Your task to perform on an android device: Show the shopping cart on bestbuy.com. Search for apple airpods on bestbuy.com, select the first entry, and add it to the cart. Image 0: 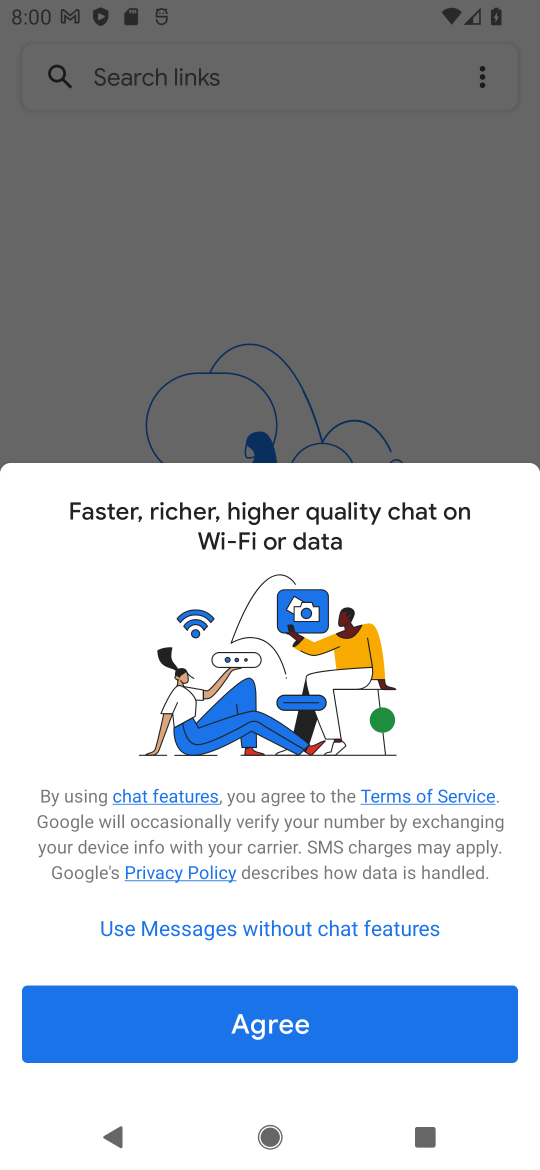
Step 0: press home button
Your task to perform on an android device: Show the shopping cart on bestbuy.com. Search for apple airpods on bestbuy.com, select the first entry, and add it to the cart. Image 1: 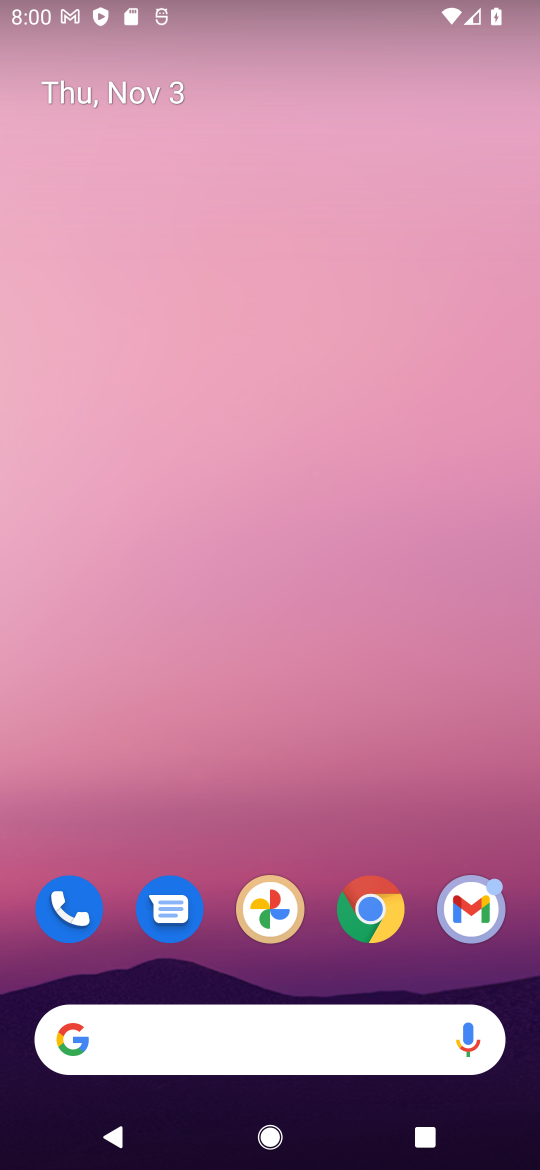
Step 1: drag from (222, 971) to (220, 50)
Your task to perform on an android device: Show the shopping cart on bestbuy.com. Search for apple airpods on bestbuy.com, select the first entry, and add it to the cart. Image 2: 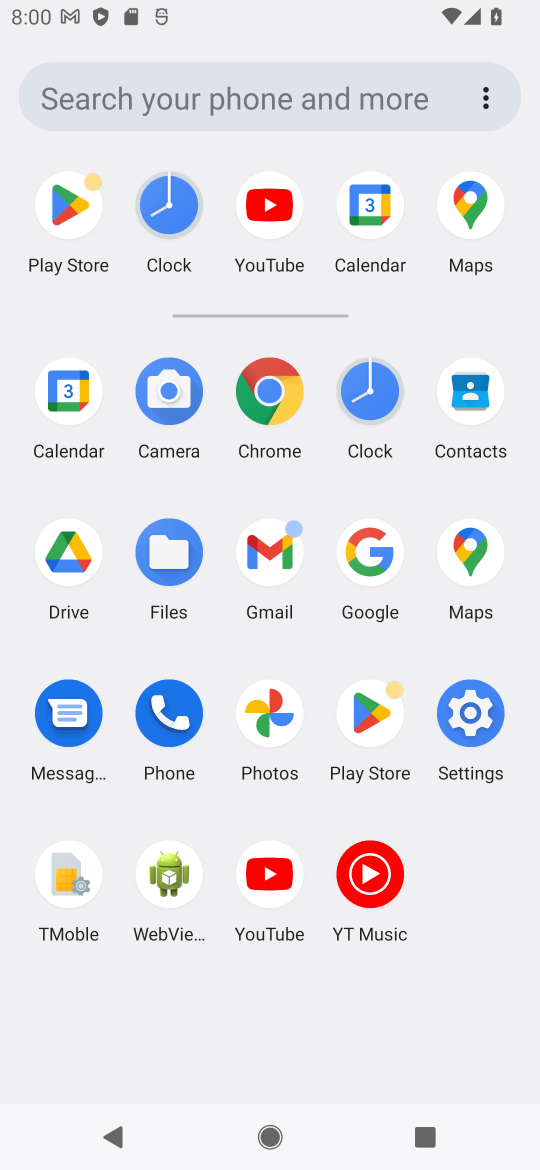
Step 2: click (380, 546)
Your task to perform on an android device: Show the shopping cart on bestbuy.com. Search for apple airpods on bestbuy.com, select the first entry, and add it to the cart. Image 3: 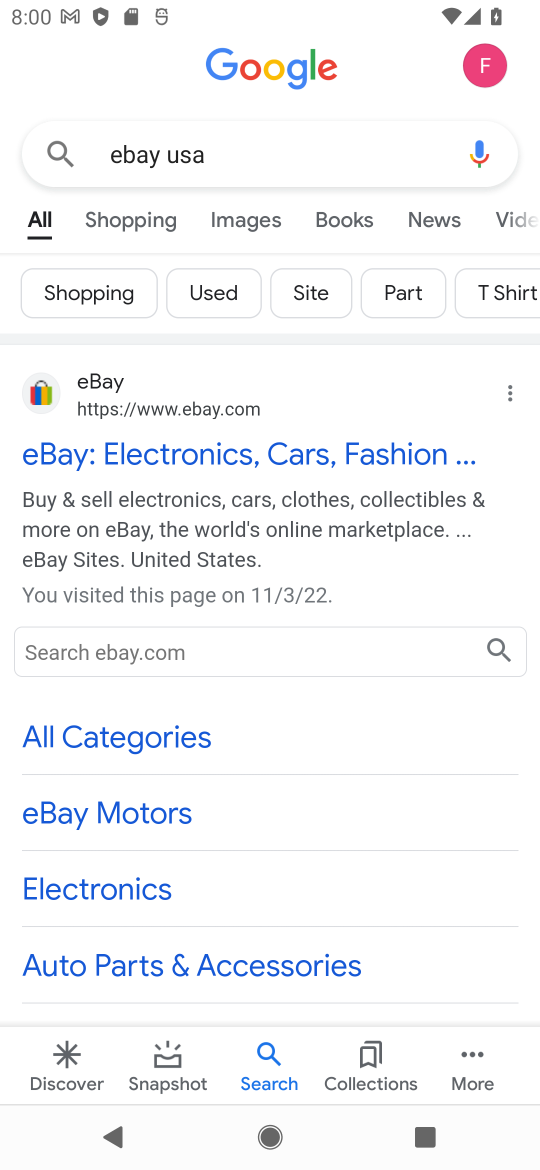
Step 3: click (229, 157)
Your task to perform on an android device: Show the shopping cart on bestbuy.com. Search for apple airpods on bestbuy.com, select the first entry, and add it to the cart. Image 4: 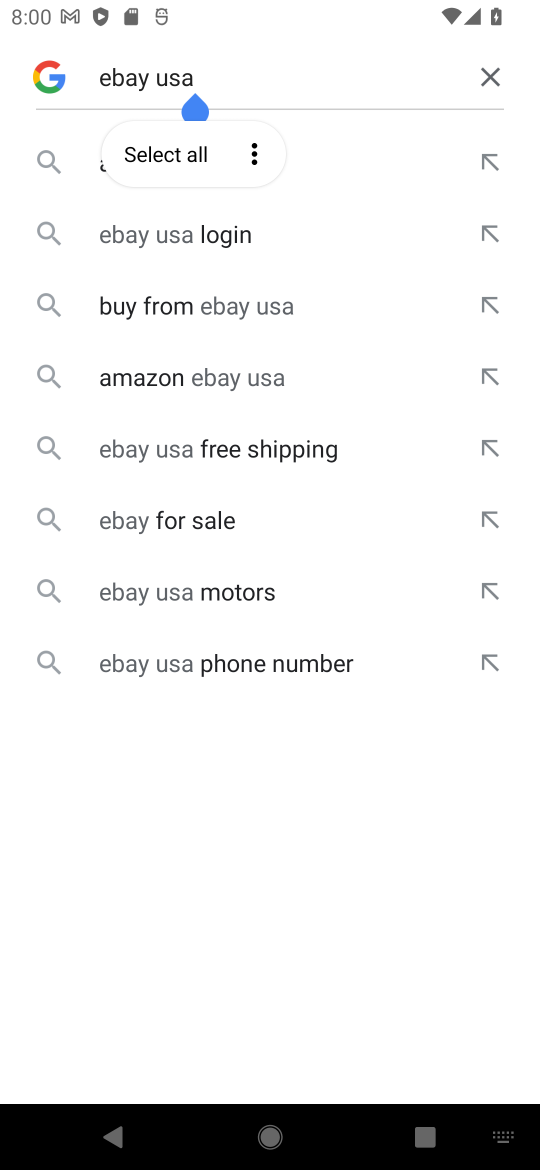
Step 4: click (487, 75)
Your task to perform on an android device: Show the shopping cart on bestbuy.com. Search for apple airpods on bestbuy.com, select the first entry, and add it to the cart. Image 5: 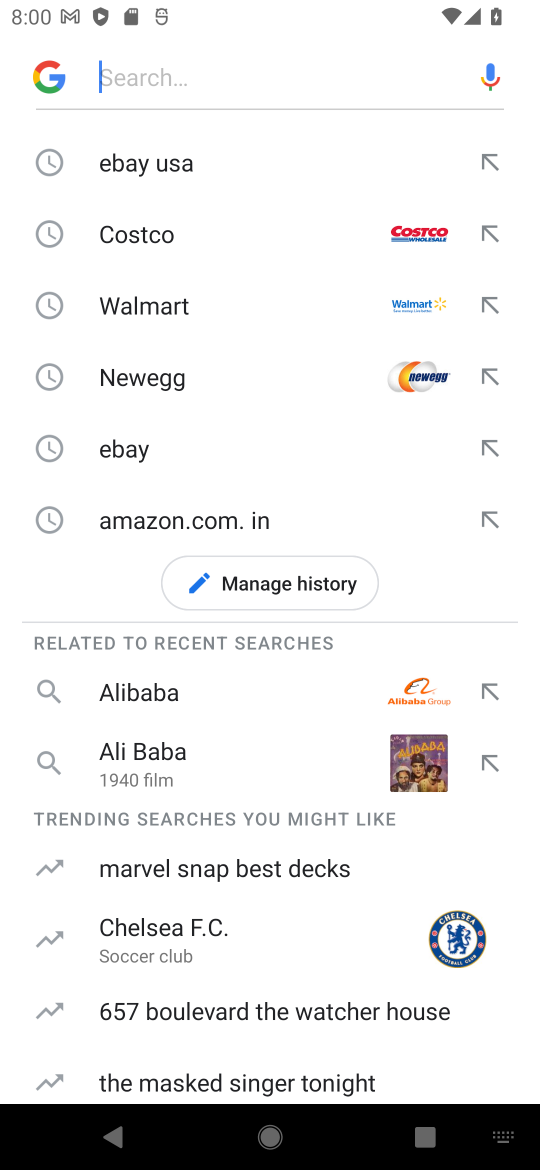
Step 5: click (221, 77)
Your task to perform on an android device: Show the shopping cart on bestbuy.com. Search for apple airpods on bestbuy.com, select the first entry, and add it to the cart. Image 6: 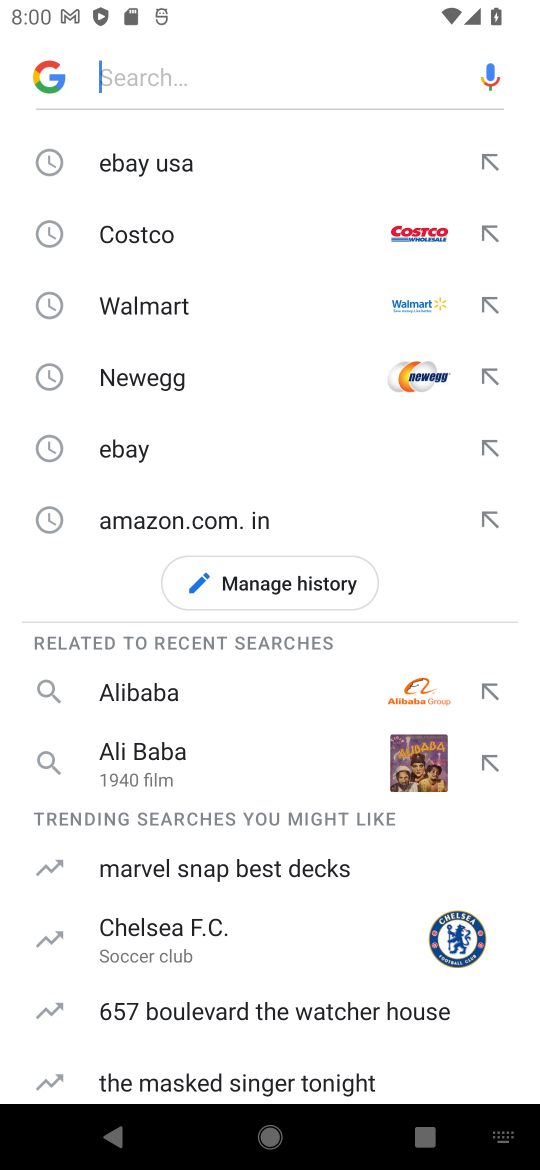
Step 6: type "bestbuy "
Your task to perform on an android device: Show the shopping cart on bestbuy.com. Search for apple airpods on bestbuy.com, select the first entry, and add it to the cart. Image 7: 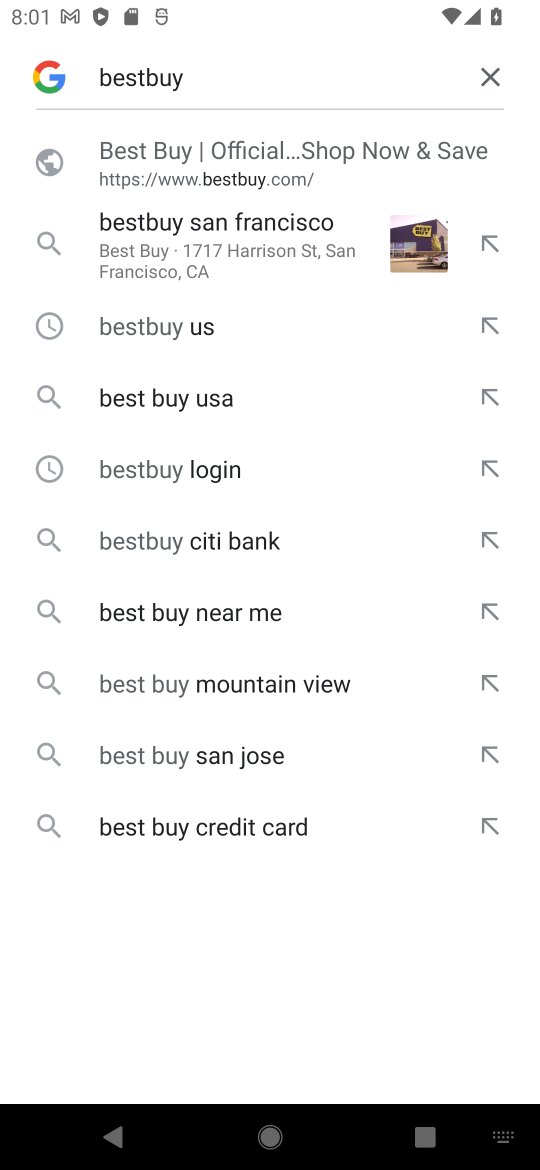
Step 7: click (231, 149)
Your task to perform on an android device: Show the shopping cart on bestbuy.com. Search for apple airpods on bestbuy.com, select the first entry, and add it to the cart. Image 8: 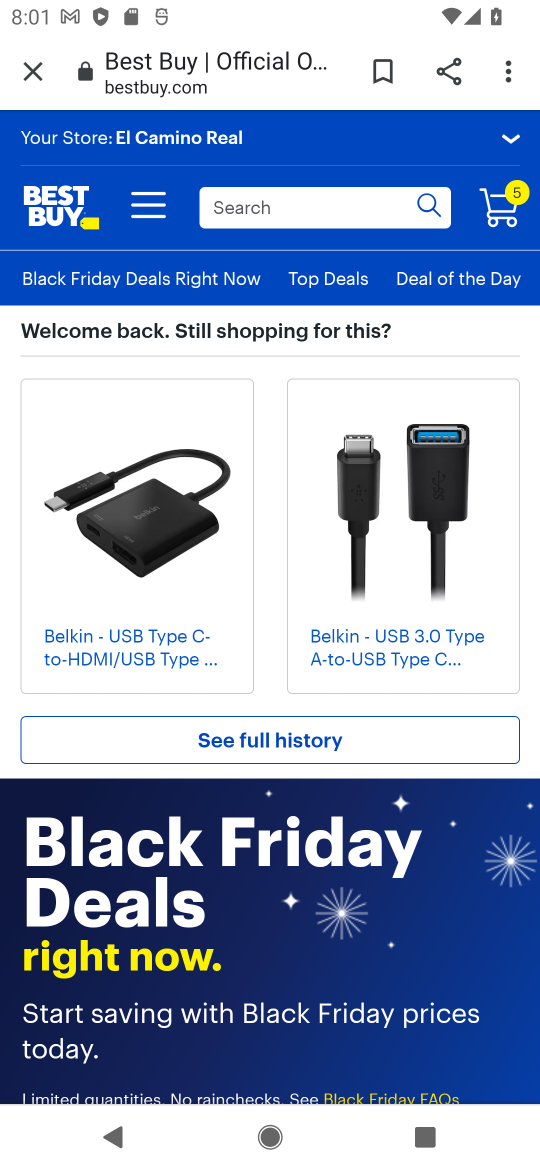
Step 8: click (283, 201)
Your task to perform on an android device: Show the shopping cart on bestbuy.com. Search for apple airpods on bestbuy.com, select the first entry, and add it to the cart. Image 9: 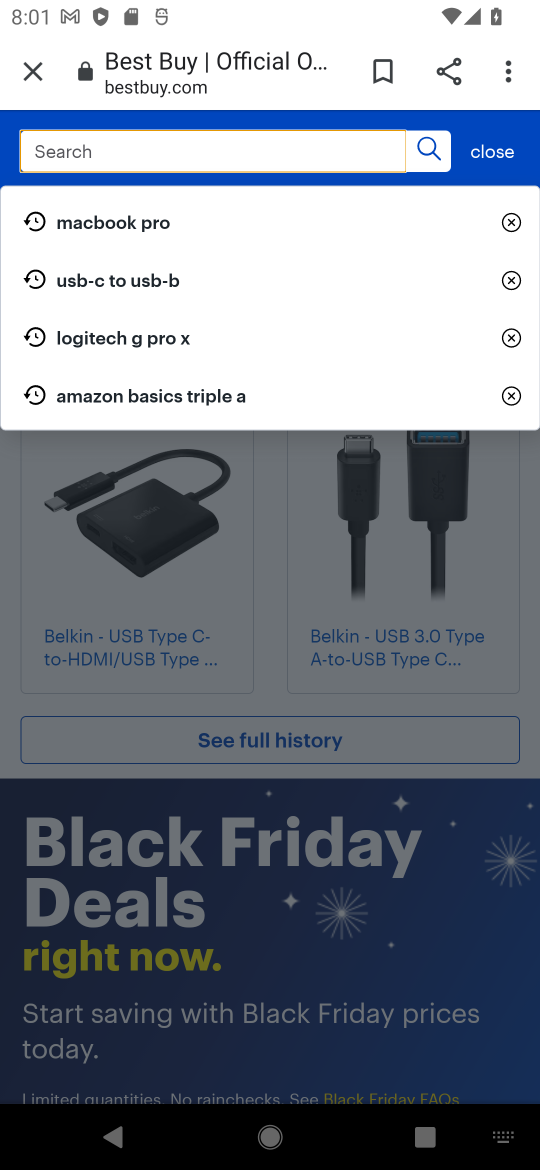
Step 9: type "airpods "
Your task to perform on an android device: Show the shopping cart on bestbuy.com. Search for apple airpods on bestbuy.com, select the first entry, and add it to the cart. Image 10: 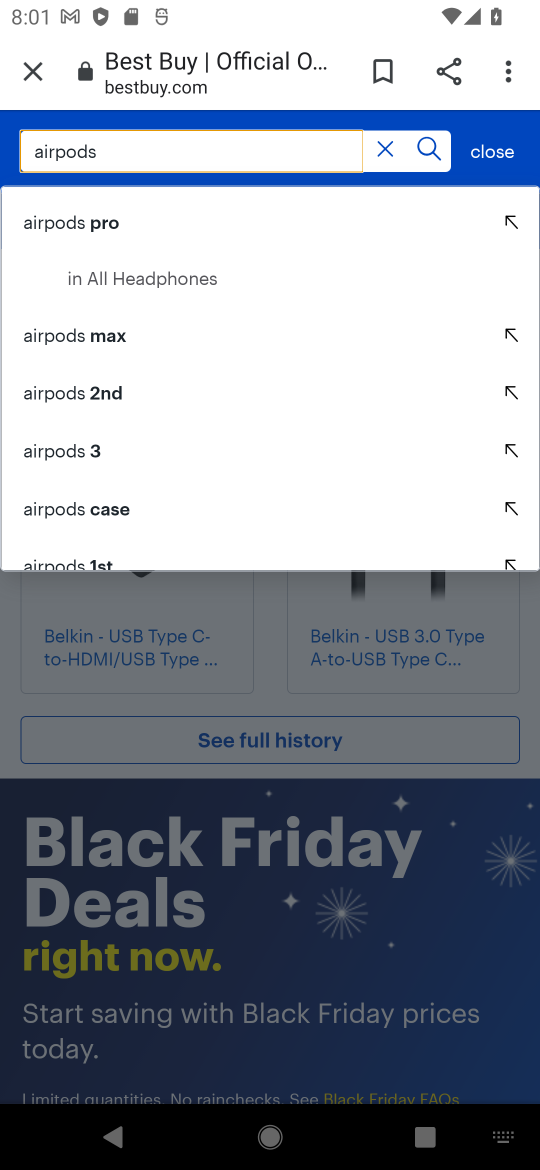
Step 10: click (74, 214)
Your task to perform on an android device: Show the shopping cart on bestbuy.com. Search for apple airpods on bestbuy.com, select the first entry, and add it to the cart. Image 11: 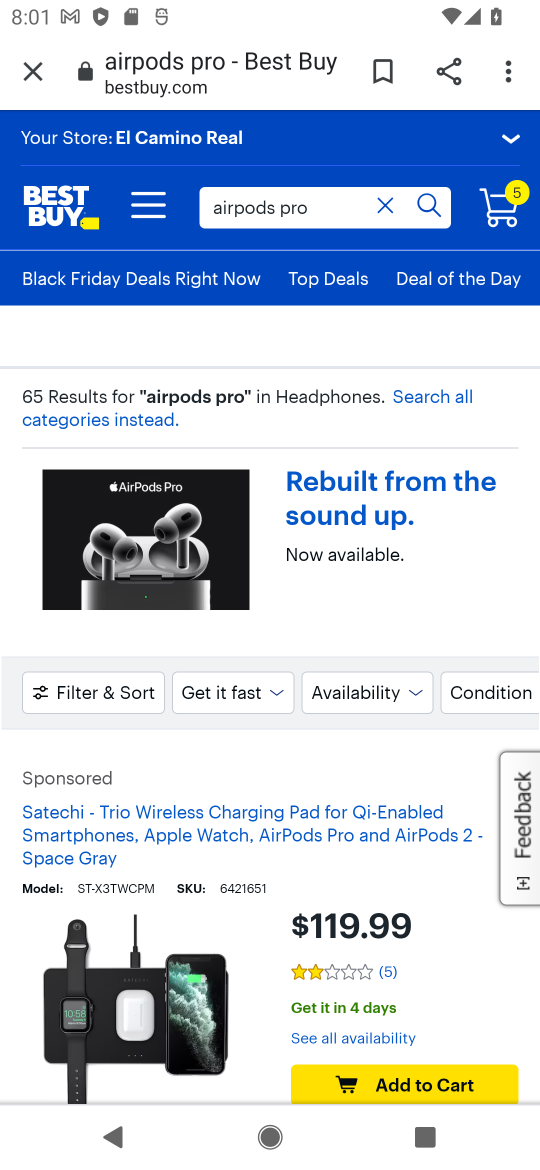
Step 11: drag from (222, 888) to (279, 342)
Your task to perform on an android device: Show the shopping cart on bestbuy.com. Search for apple airpods on bestbuy.com, select the first entry, and add it to the cart. Image 12: 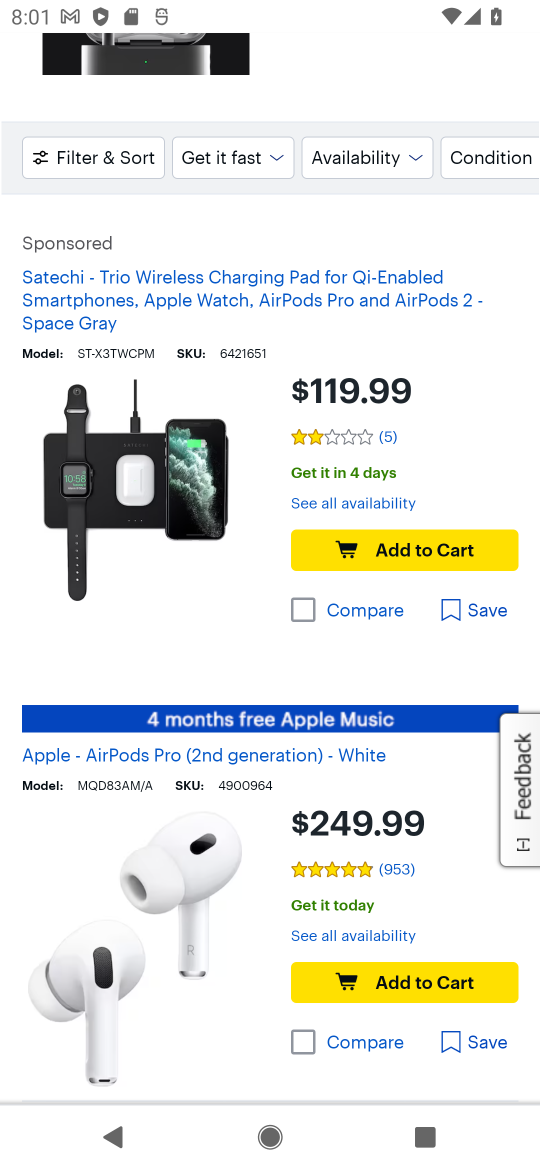
Step 12: drag from (220, 980) to (281, 403)
Your task to perform on an android device: Show the shopping cart on bestbuy.com. Search for apple airpods on bestbuy.com, select the first entry, and add it to the cart. Image 13: 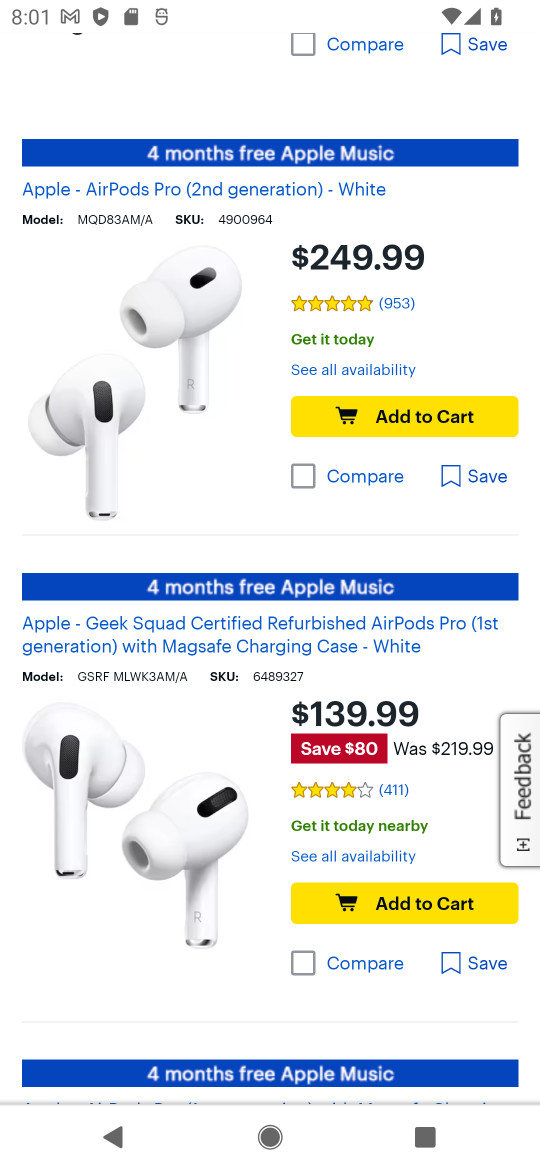
Step 13: click (379, 907)
Your task to perform on an android device: Show the shopping cart on bestbuy.com. Search for apple airpods on bestbuy.com, select the first entry, and add it to the cart. Image 14: 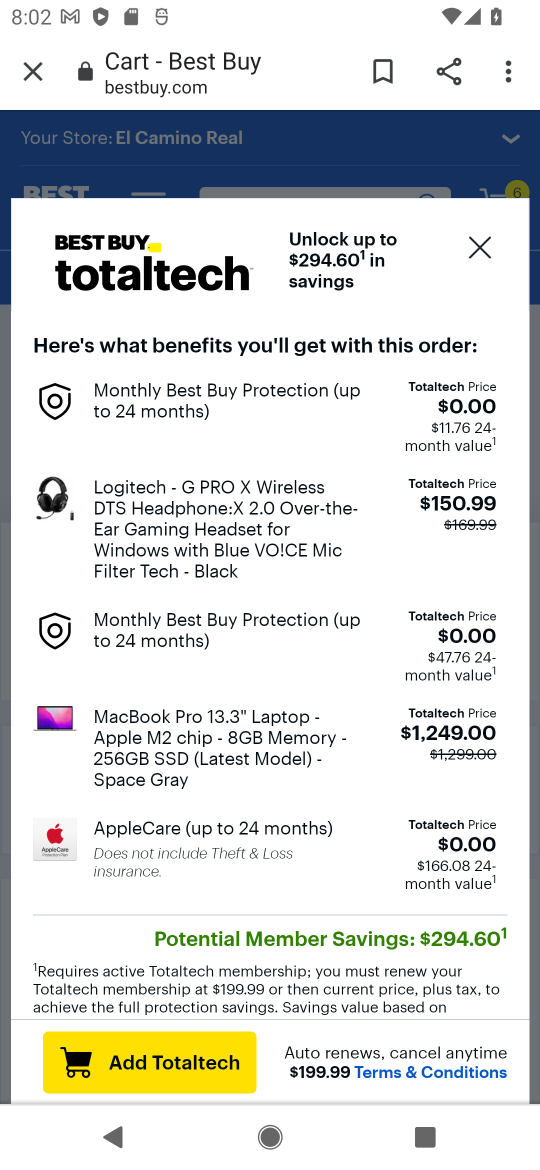
Step 14: click (484, 259)
Your task to perform on an android device: Show the shopping cart on bestbuy.com. Search for apple airpods on bestbuy.com, select the first entry, and add it to the cart. Image 15: 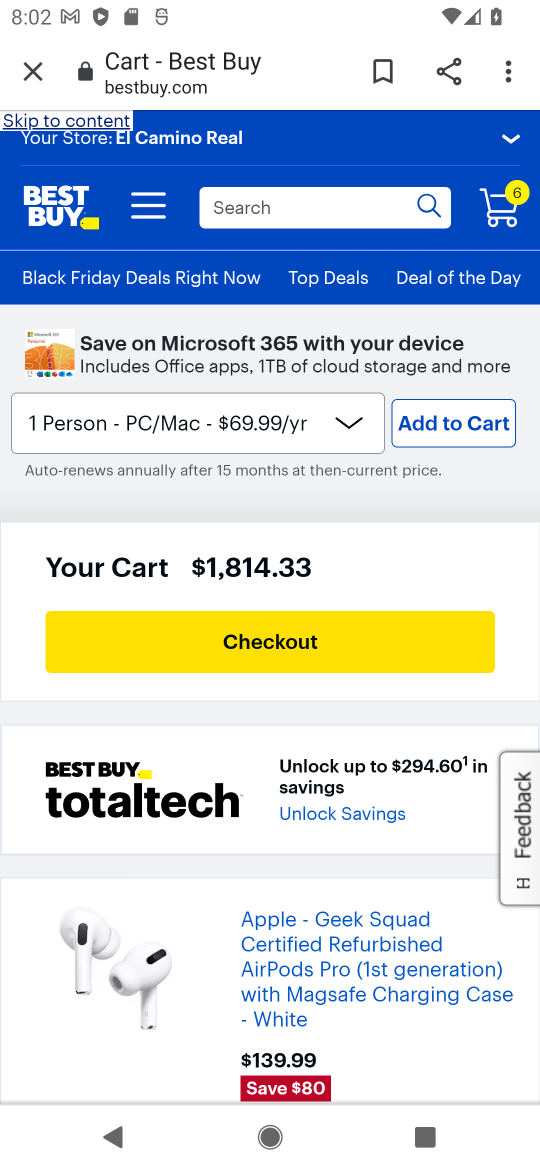
Step 15: task complete